Your task to perform on an android device: Is it going to rain tomorrow? Image 0: 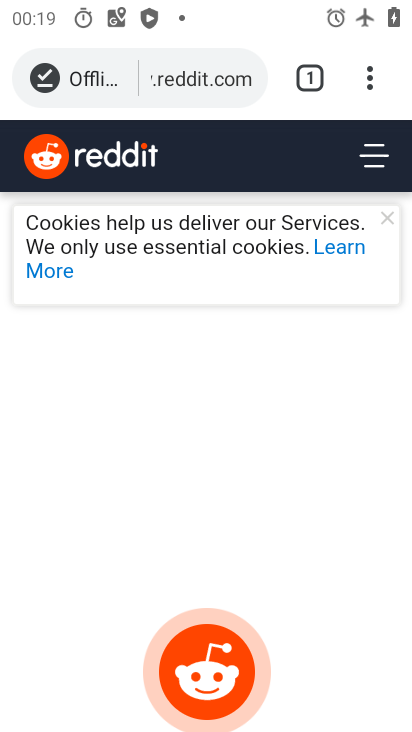
Step 0: press home button
Your task to perform on an android device: Is it going to rain tomorrow? Image 1: 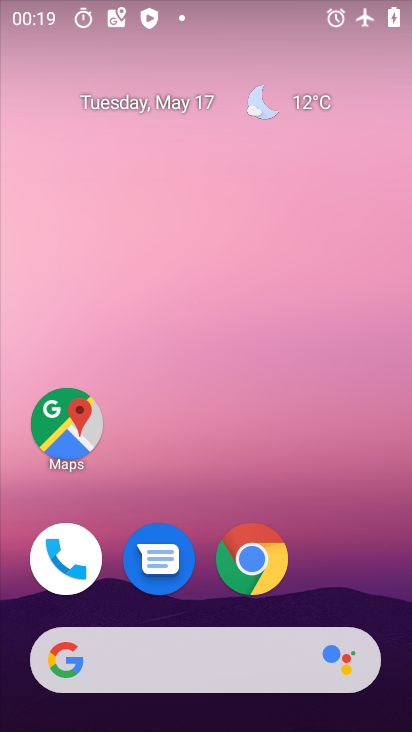
Step 1: click (309, 104)
Your task to perform on an android device: Is it going to rain tomorrow? Image 2: 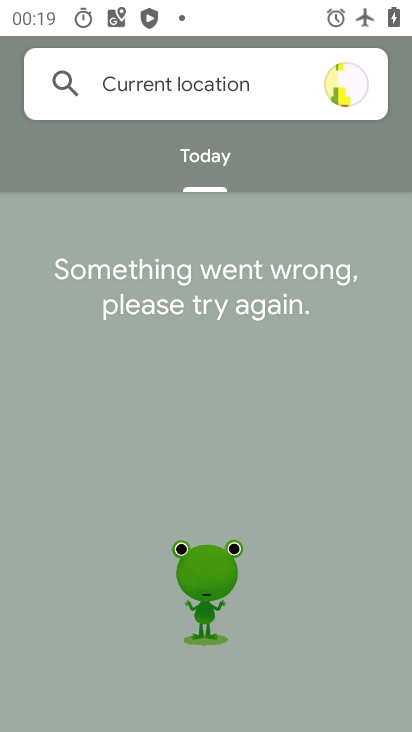
Step 2: task complete